Your task to perform on an android device: Show me recent news Image 0: 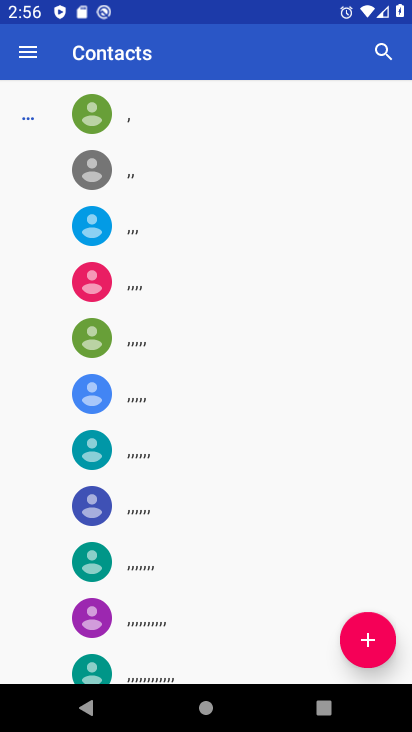
Step 0: press home button
Your task to perform on an android device: Show me recent news Image 1: 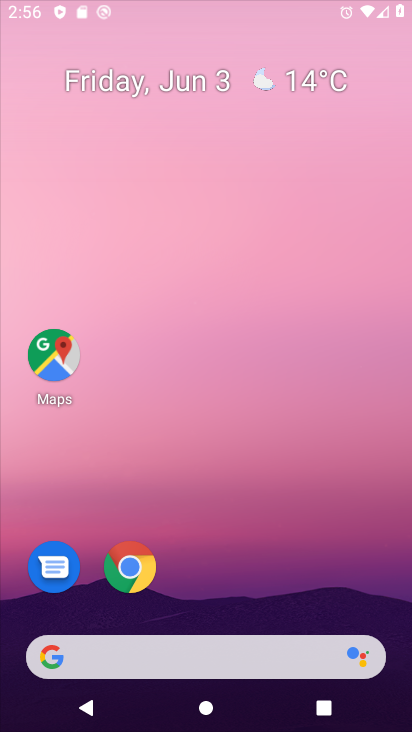
Step 1: drag from (184, 681) to (259, 155)
Your task to perform on an android device: Show me recent news Image 2: 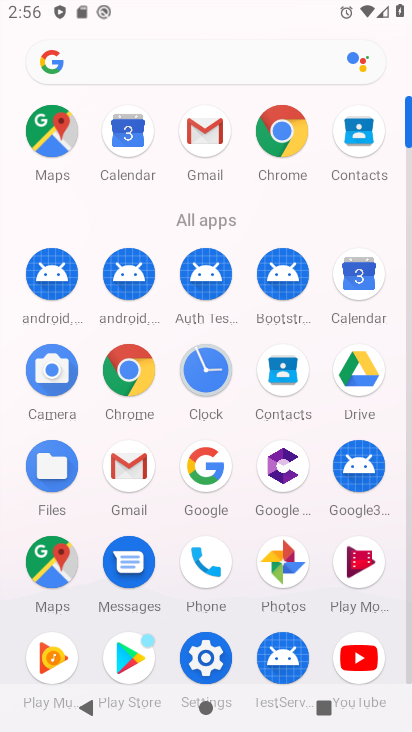
Step 2: click (171, 61)
Your task to perform on an android device: Show me recent news Image 3: 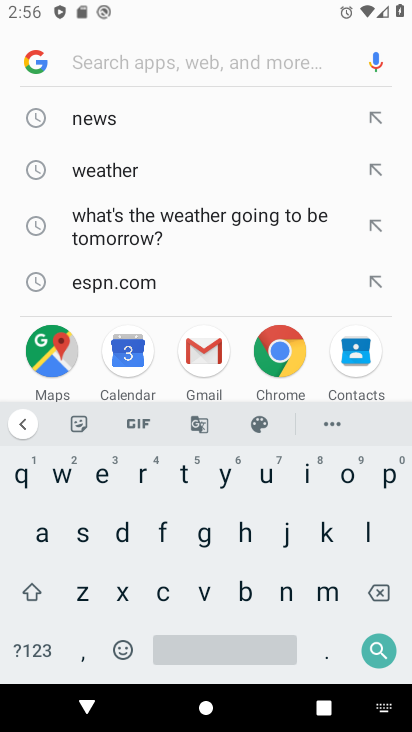
Step 3: click (136, 481)
Your task to perform on an android device: Show me recent news Image 4: 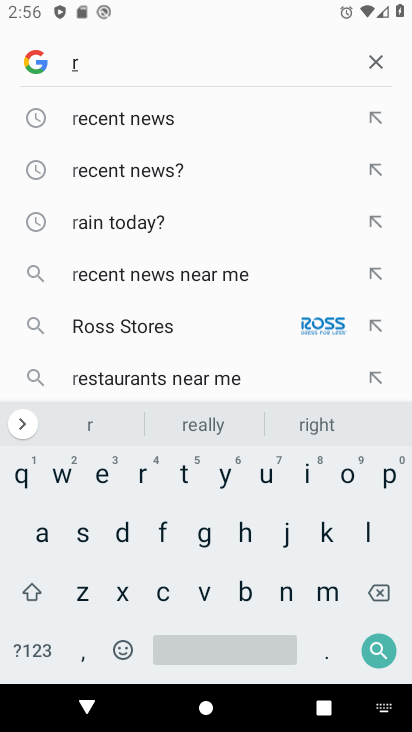
Step 4: click (142, 128)
Your task to perform on an android device: Show me recent news Image 5: 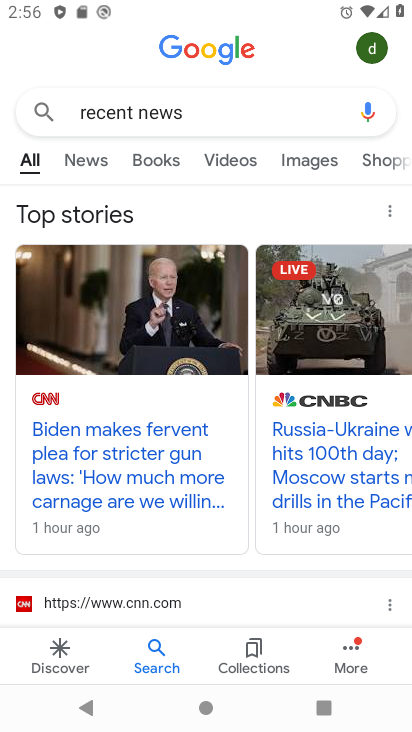
Step 5: task complete